Your task to perform on an android device: Set the phone to "Do not disturb". Image 0: 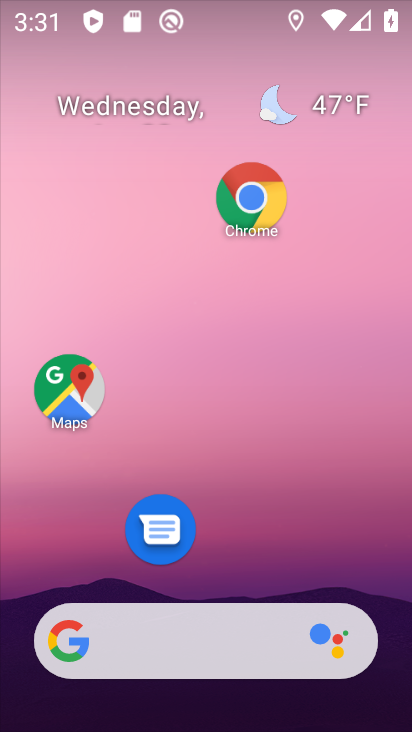
Step 0: drag from (240, 556) to (233, 63)
Your task to perform on an android device: Set the phone to "Do not disturb". Image 1: 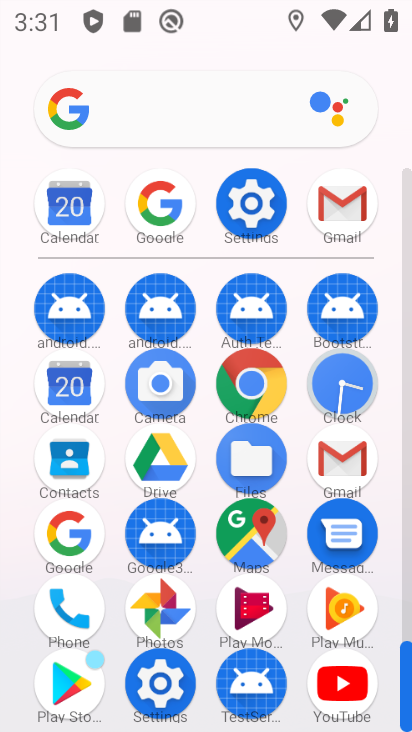
Step 1: click (254, 216)
Your task to perform on an android device: Set the phone to "Do not disturb". Image 2: 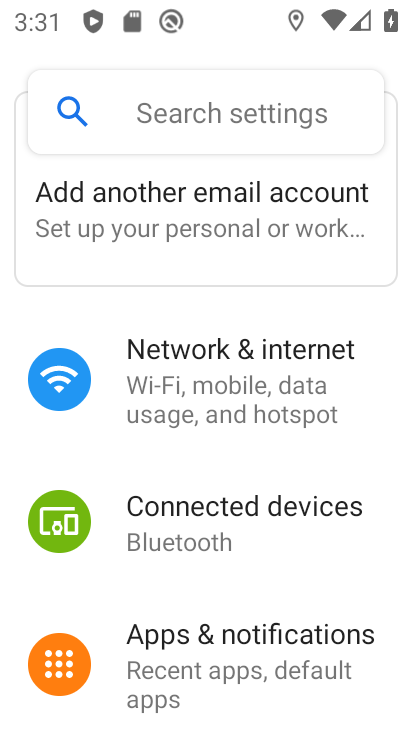
Step 2: drag from (248, 671) to (261, 263)
Your task to perform on an android device: Set the phone to "Do not disturb". Image 3: 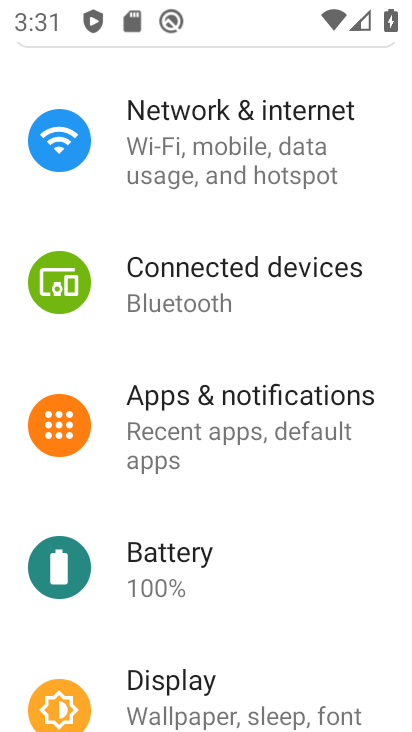
Step 3: drag from (219, 673) to (220, 236)
Your task to perform on an android device: Set the phone to "Do not disturb". Image 4: 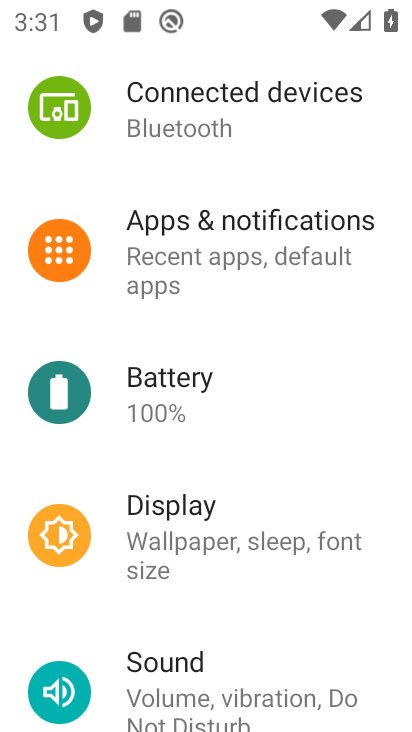
Step 4: click (199, 667)
Your task to perform on an android device: Set the phone to "Do not disturb". Image 5: 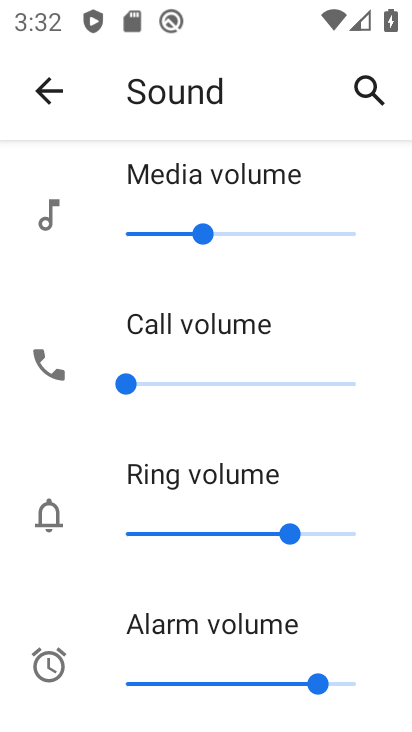
Step 5: drag from (231, 647) to (235, 235)
Your task to perform on an android device: Set the phone to "Do not disturb". Image 6: 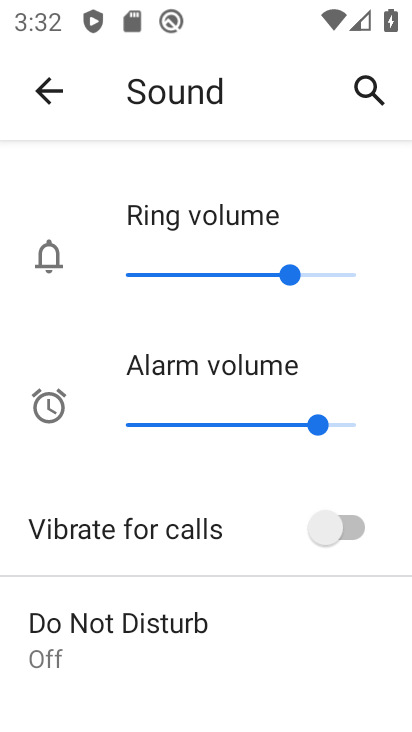
Step 6: click (146, 642)
Your task to perform on an android device: Set the phone to "Do not disturb". Image 7: 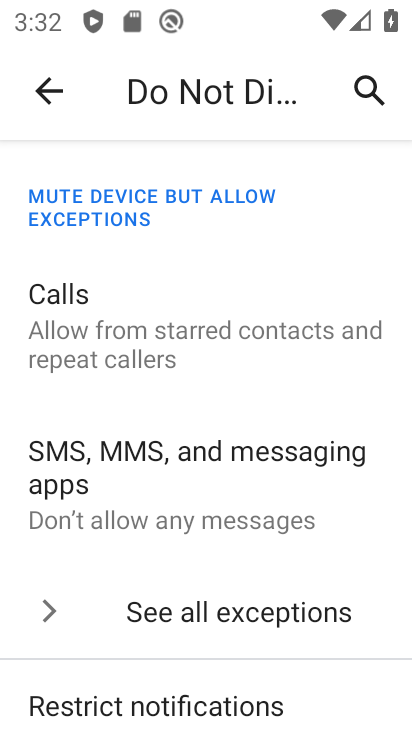
Step 7: drag from (144, 610) to (168, 294)
Your task to perform on an android device: Set the phone to "Do not disturb". Image 8: 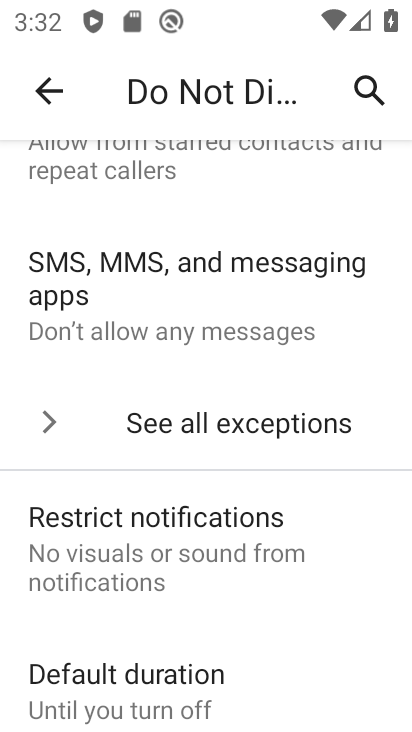
Step 8: drag from (215, 661) to (231, 231)
Your task to perform on an android device: Set the phone to "Do not disturb". Image 9: 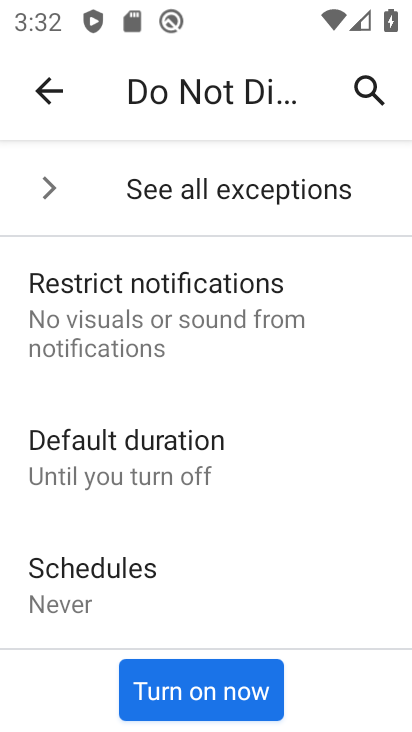
Step 9: click (214, 682)
Your task to perform on an android device: Set the phone to "Do not disturb". Image 10: 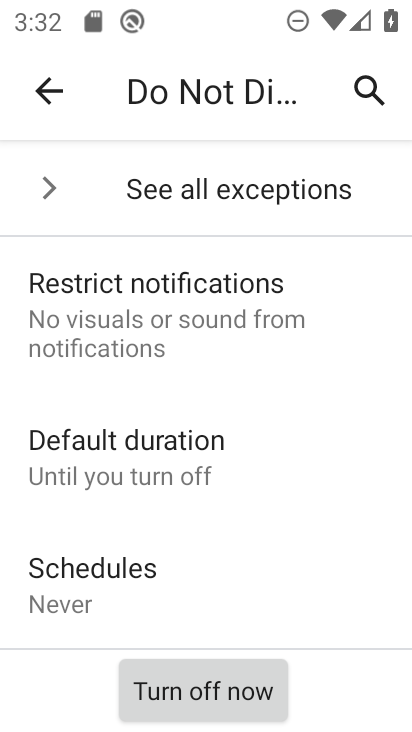
Step 10: task complete